Your task to perform on an android device: Open calendar and show me the second week of next month Image 0: 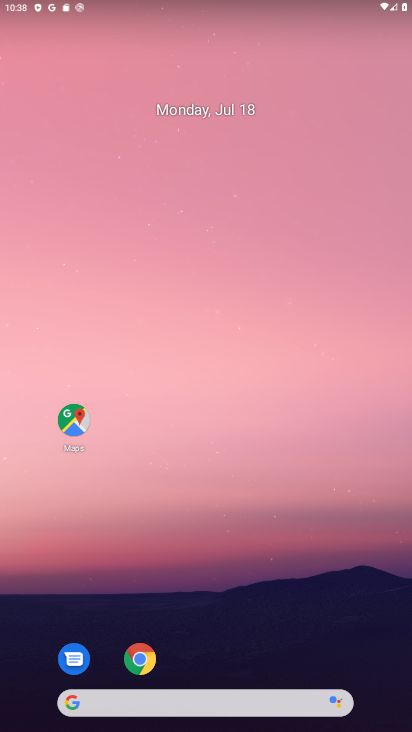
Step 0: press home button
Your task to perform on an android device: Open calendar and show me the second week of next month Image 1: 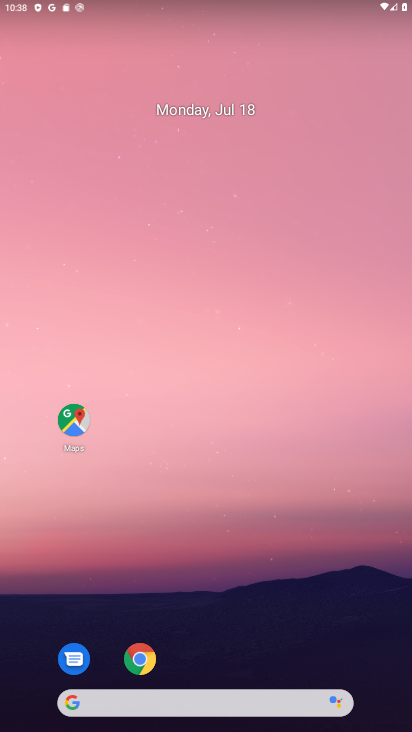
Step 1: drag from (243, 723) to (145, 18)
Your task to perform on an android device: Open calendar and show me the second week of next month Image 2: 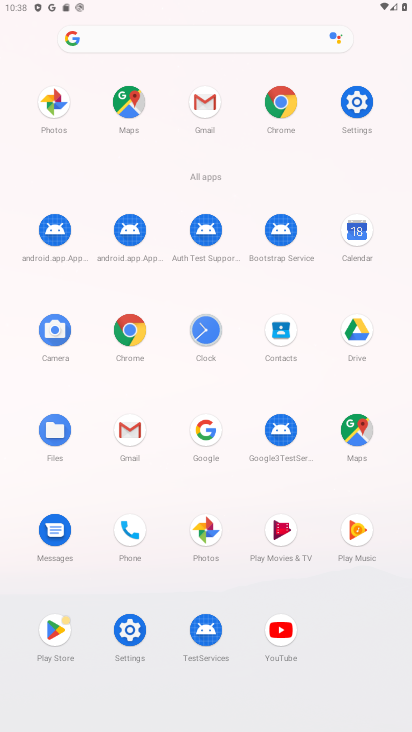
Step 2: click (334, 245)
Your task to perform on an android device: Open calendar and show me the second week of next month Image 3: 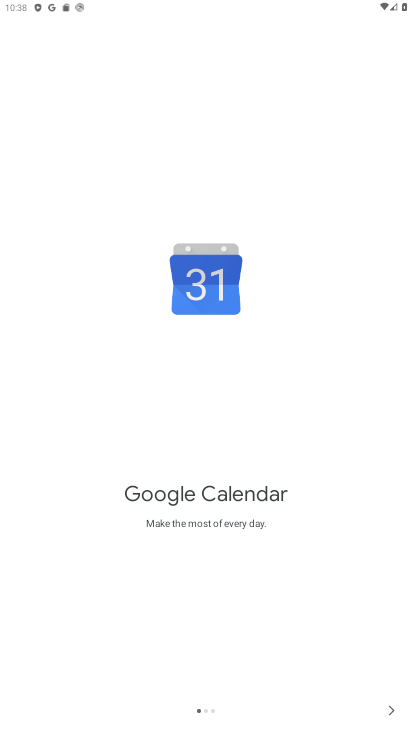
Step 3: click (385, 697)
Your task to perform on an android device: Open calendar and show me the second week of next month Image 4: 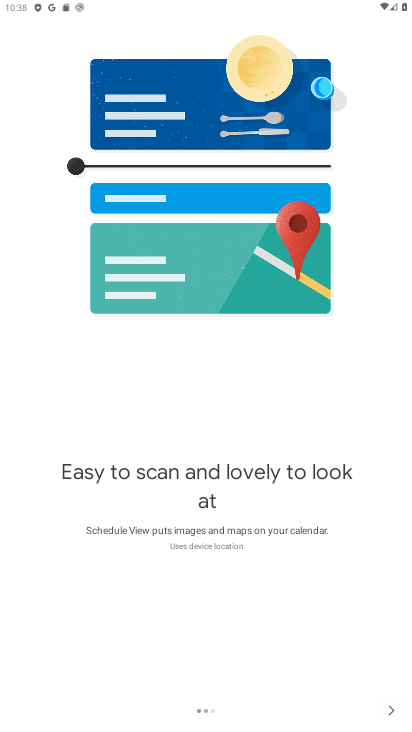
Step 4: click (389, 701)
Your task to perform on an android device: Open calendar and show me the second week of next month Image 5: 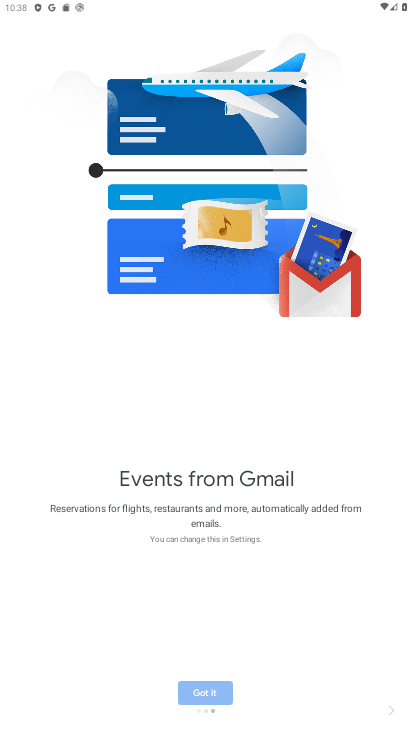
Step 5: click (389, 701)
Your task to perform on an android device: Open calendar and show me the second week of next month Image 6: 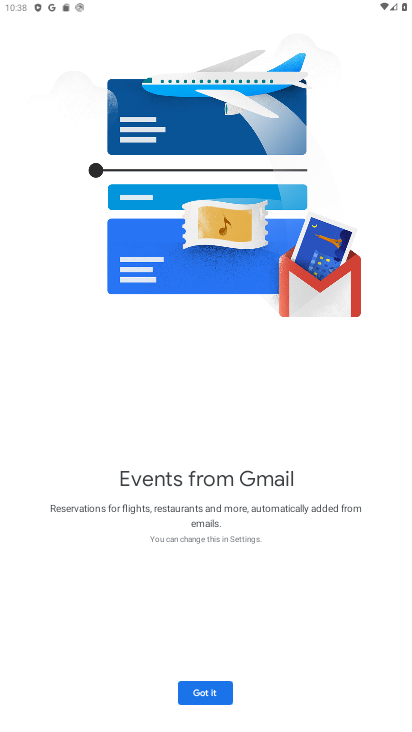
Step 6: click (179, 688)
Your task to perform on an android device: Open calendar and show me the second week of next month Image 7: 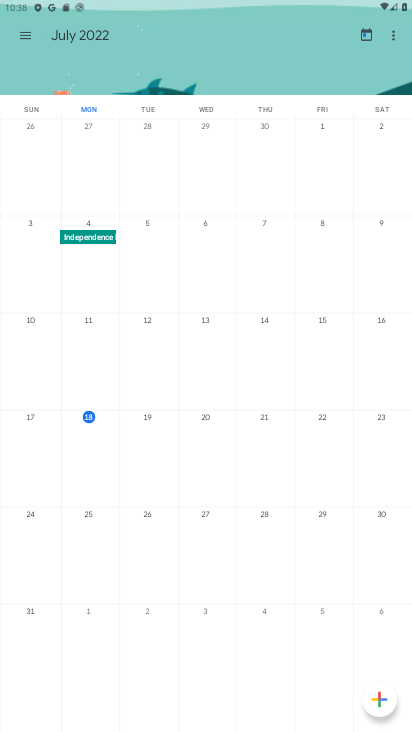
Step 7: drag from (360, 299) to (16, 345)
Your task to perform on an android device: Open calendar and show me the second week of next month Image 8: 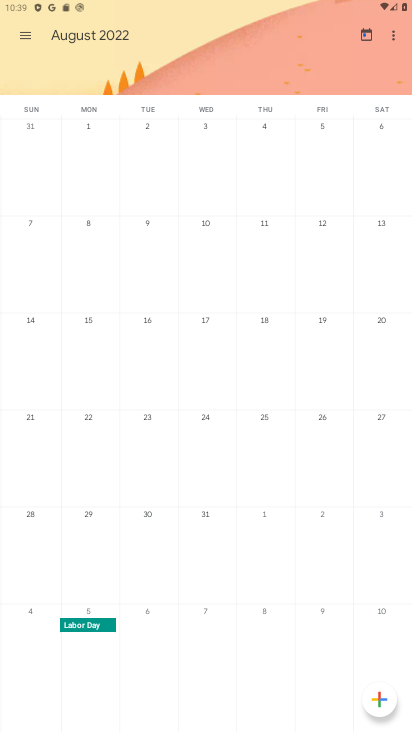
Step 8: click (92, 242)
Your task to perform on an android device: Open calendar and show me the second week of next month Image 9: 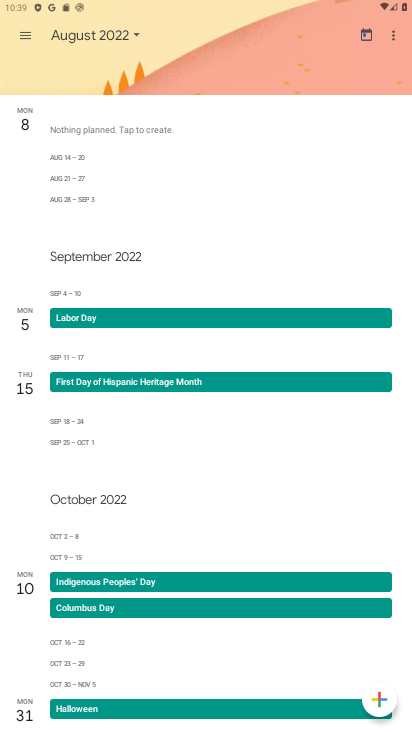
Step 9: task complete